Your task to perform on an android device: turn on improve location accuracy Image 0: 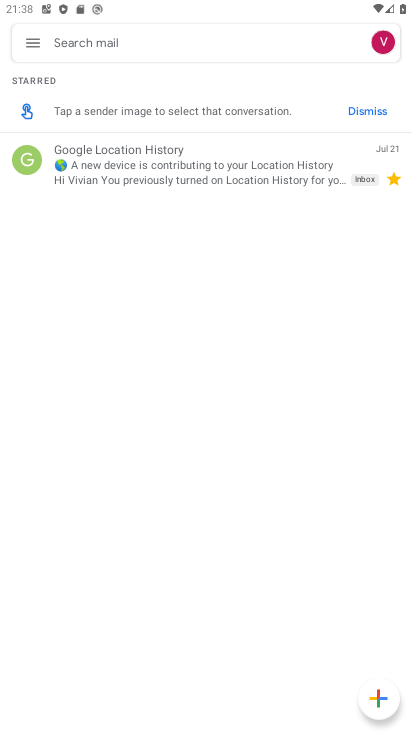
Step 0: press home button
Your task to perform on an android device: turn on improve location accuracy Image 1: 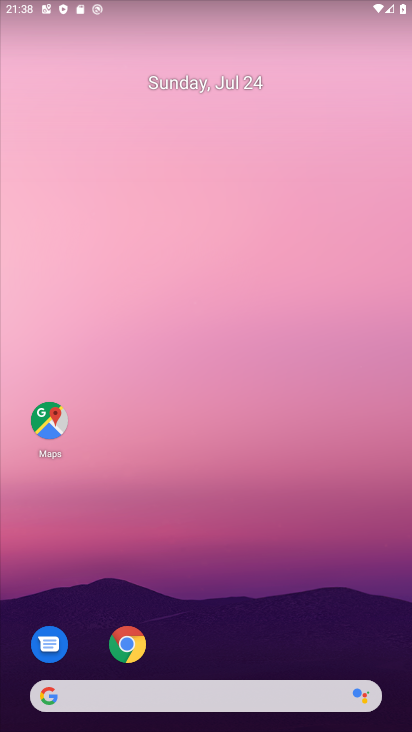
Step 1: drag from (370, 640) to (305, 70)
Your task to perform on an android device: turn on improve location accuracy Image 2: 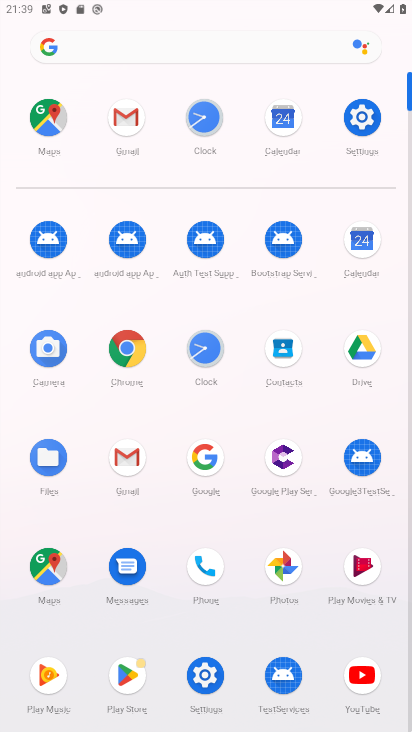
Step 2: click (206, 674)
Your task to perform on an android device: turn on improve location accuracy Image 3: 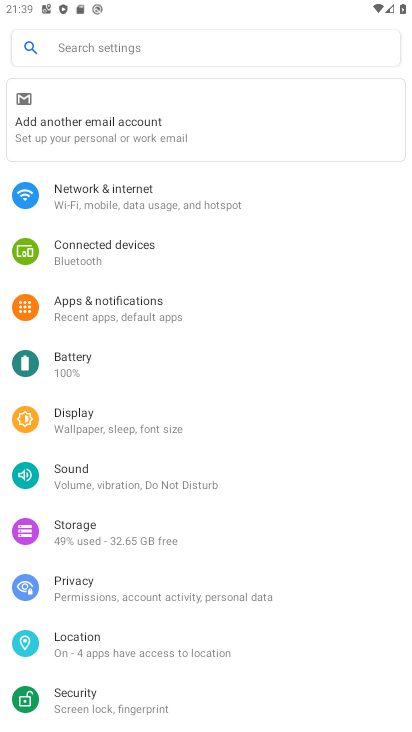
Step 3: click (77, 634)
Your task to perform on an android device: turn on improve location accuracy Image 4: 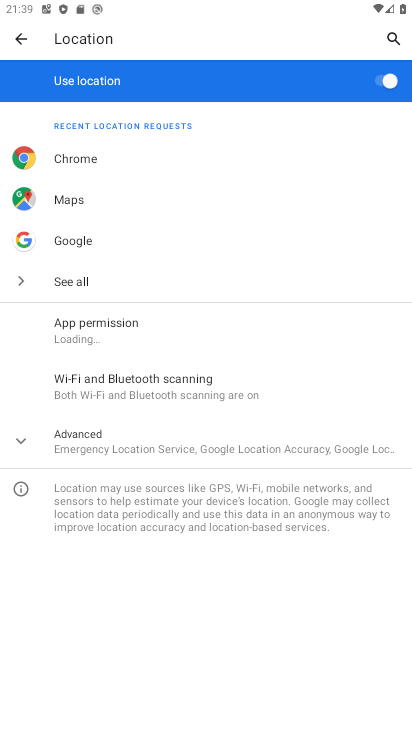
Step 4: click (17, 439)
Your task to perform on an android device: turn on improve location accuracy Image 5: 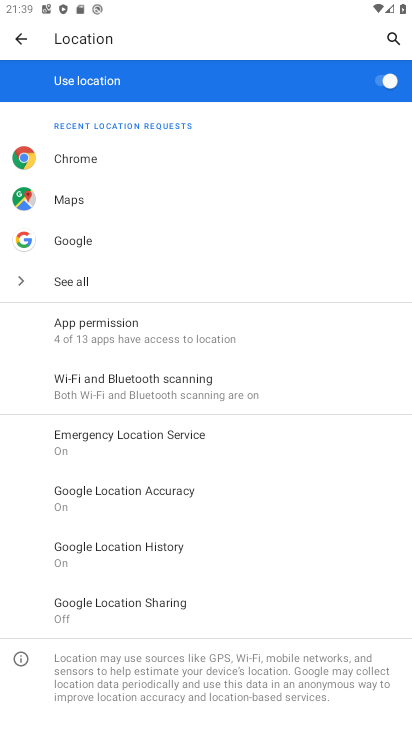
Step 5: click (93, 491)
Your task to perform on an android device: turn on improve location accuracy Image 6: 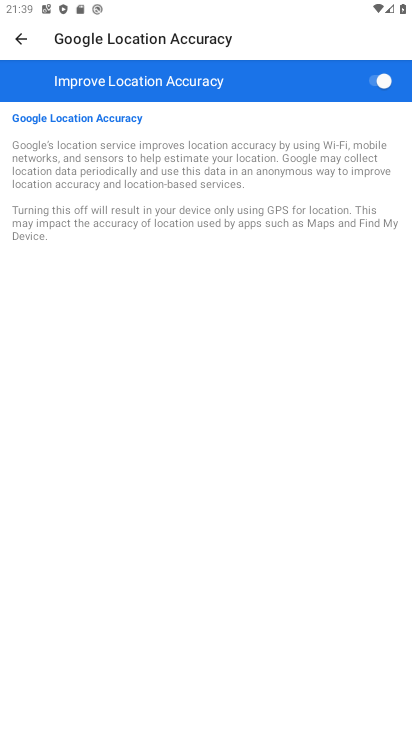
Step 6: task complete